Your task to perform on an android device: Open the calendar app, open the side menu, and click the "Day" option Image 0: 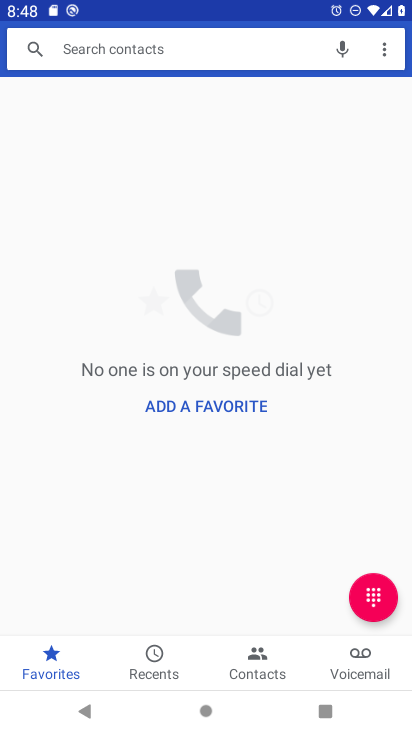
Step 0: press home button
Your task to perform on an android device: Open the calendar app, open the side menu, and click the "Day" option Image 1: 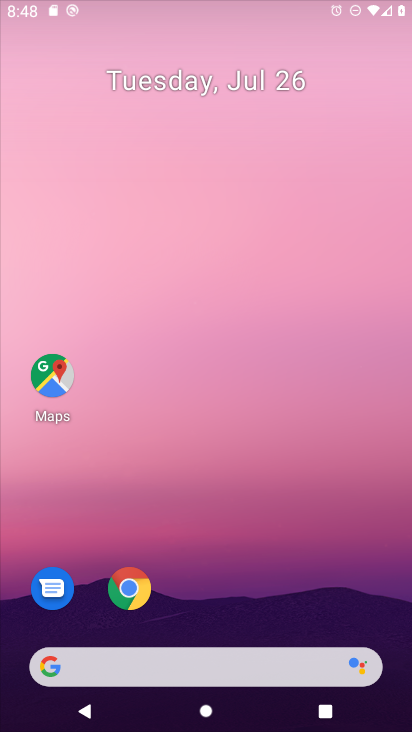
Step 1: drag from (195, 685) to (211, 266)
Your task to perform on an android device: Open the calendar app, open the side menu, and click the "Day" option Image 2: 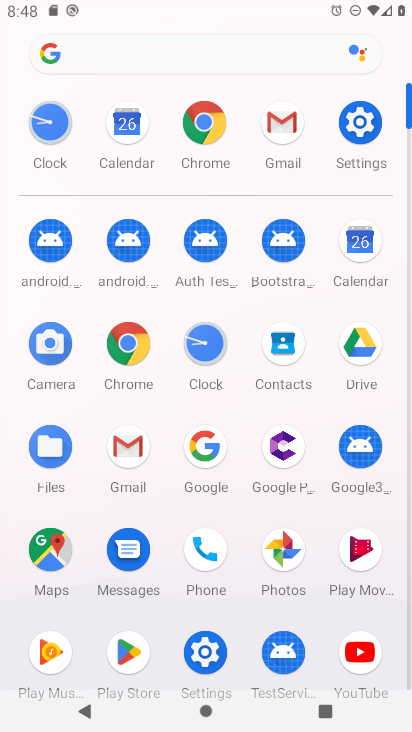
Step 2: click (372, 255)
Your task to perform on an android device: Open the calendar app, open the side menu, and click the "Day" option Image 3: 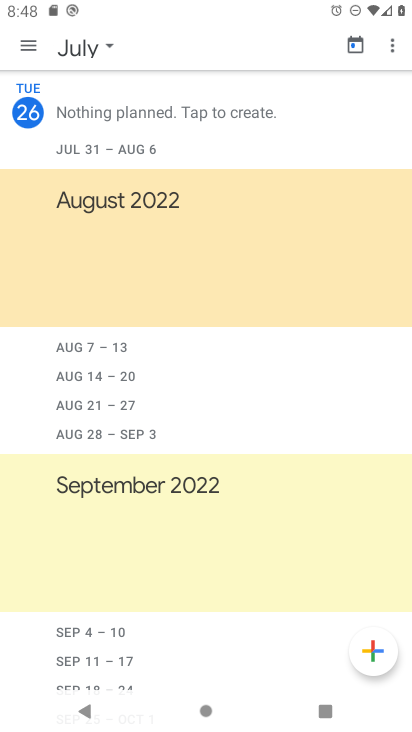
Step 3: click (22, 34)
Your task to perform on an android device: Open the calendar app, open the side menu, and click the "Day" option Image 4: 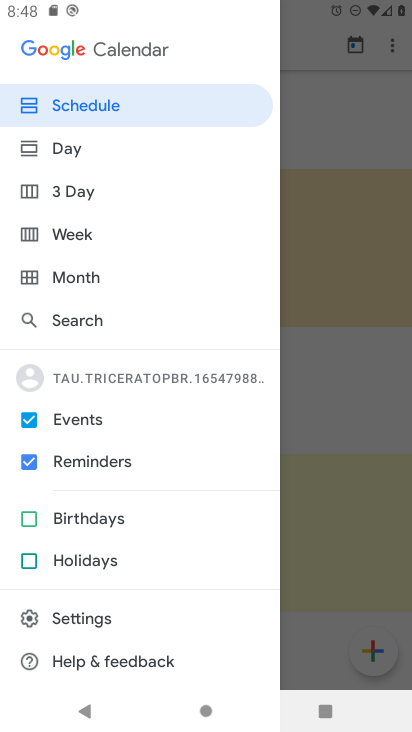
Step 4: click (62, 159)
Your task to perform on an android device: Open the calendar app, open the side menu, and click the "Day" option Image 5: 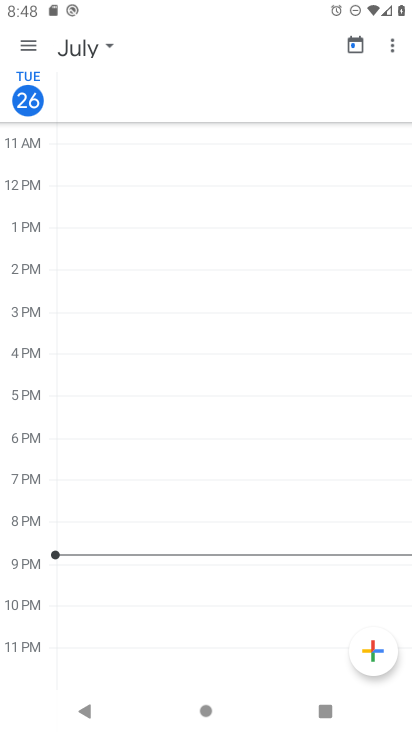
Step 5: task complete